Your task to perform on an android device: see creations saved in the google photos Image 0: 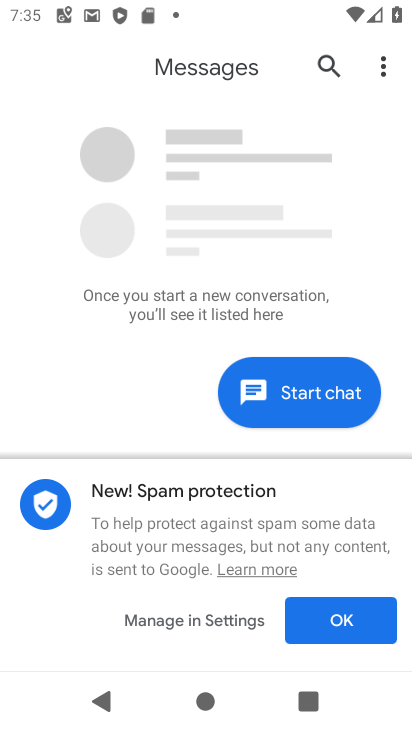
Step 0: press home button
Your task to perform on an android device: see creations saved in the google photos Image 1: 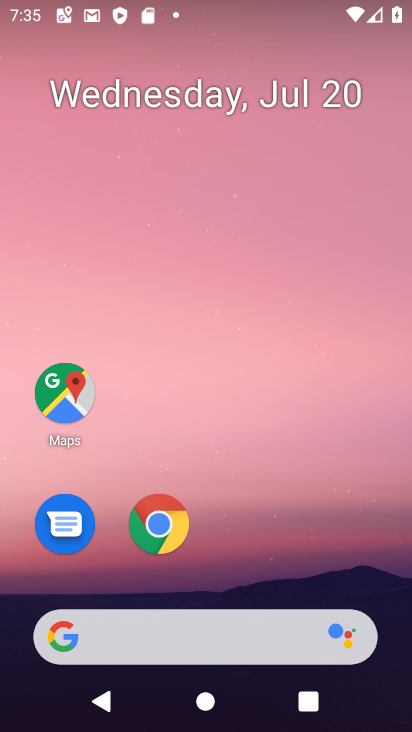
Step 1: drag from (183, 637) to (327, 116)
Your task to perform on an android device: see creations saved in the google photos Image 2: 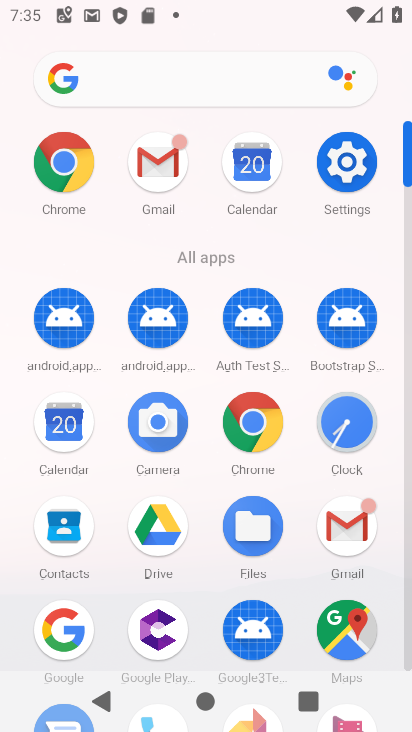
Step 2: drag from (219, 596) to (357, 170)
Your task to perform on an android device: see creations saved in the google photos Image 3: 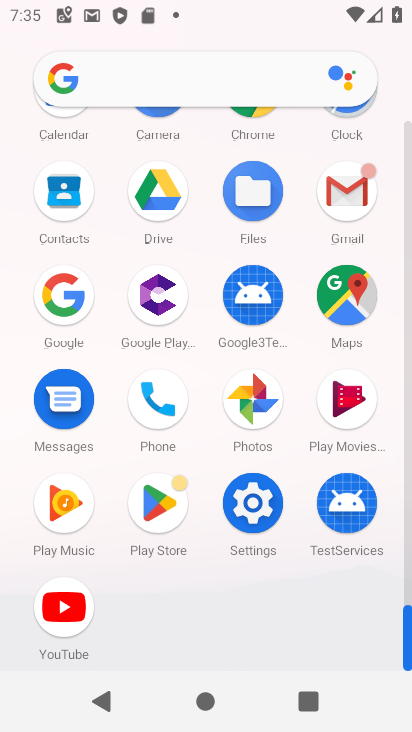
Step 3: click (266, 398)
Your task to perform on an android device: see creations saved in the google photos Image 4: 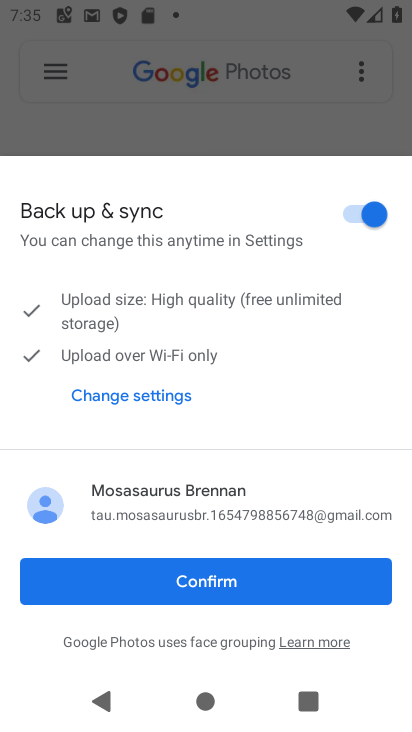
Step 4: click (186, 580)
Your task to perform on an android device: see creations saved in the google photos Image 5: 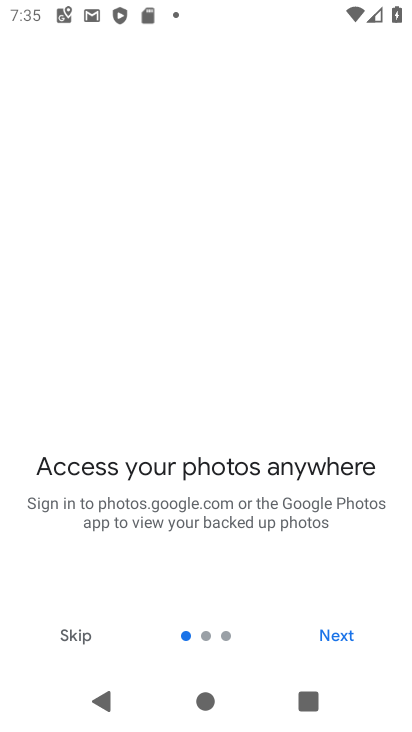
Step 5: click (337, 637)
Your task to perform on an android device: see creations saved in the google photos Image 6: 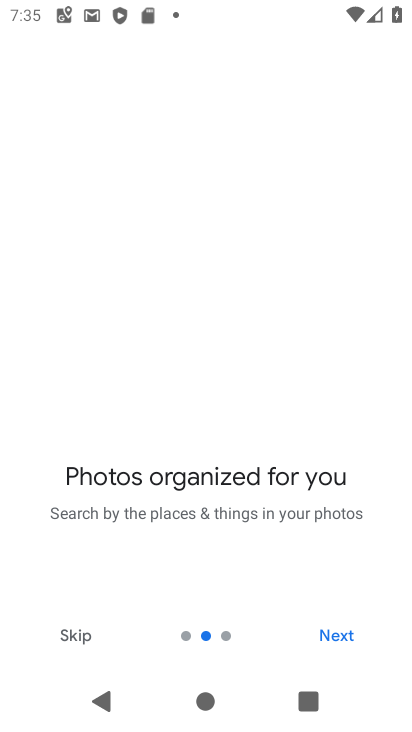
Step 6: click (337, 636)
Your task to perform on an android device: see creations saved in the google photos Image 7: 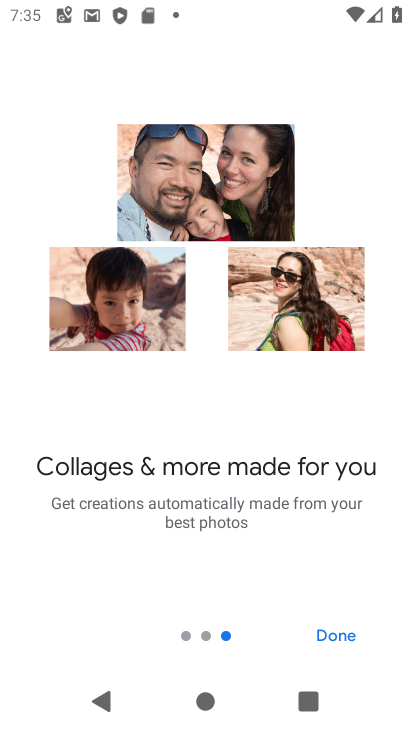
Step 7: click (334, 637)
Your task to perform on an android device: see creations saved in the google photos Image 8: 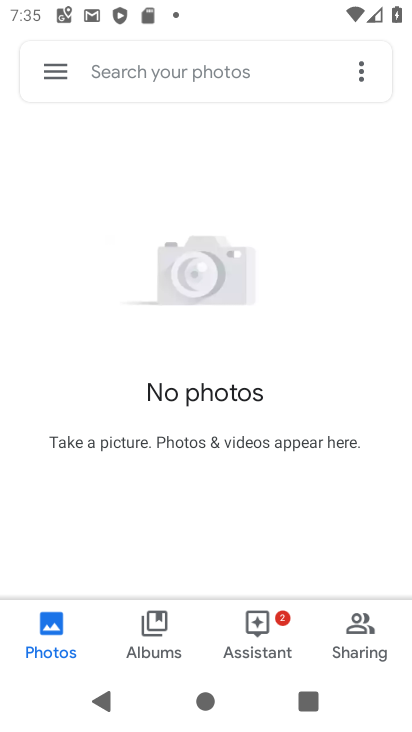
Step 8: click (150, 639)
Your task to perform on an android device: see creations saved in the google photos Image 9: 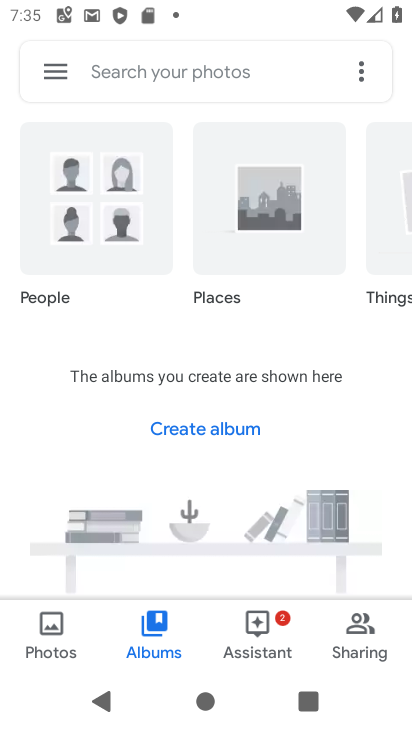
Step 9: click (216, 72)
Your task to perform on an android device: see creations saved in the google photos Image 10: 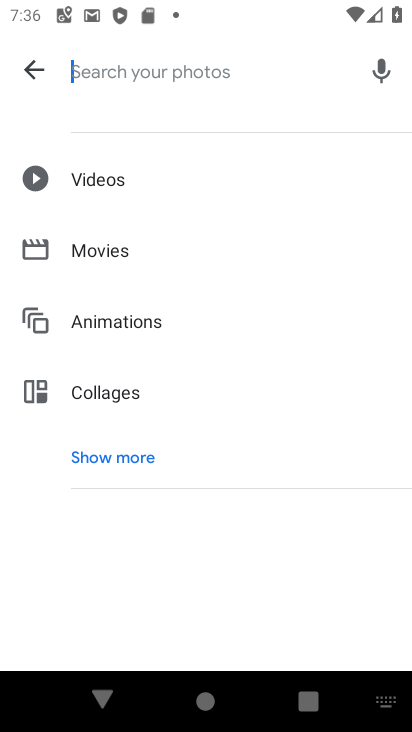
Step 10: click (100, 460)
Your task to perform on an android device: see creations saved in the google photos Image 11: 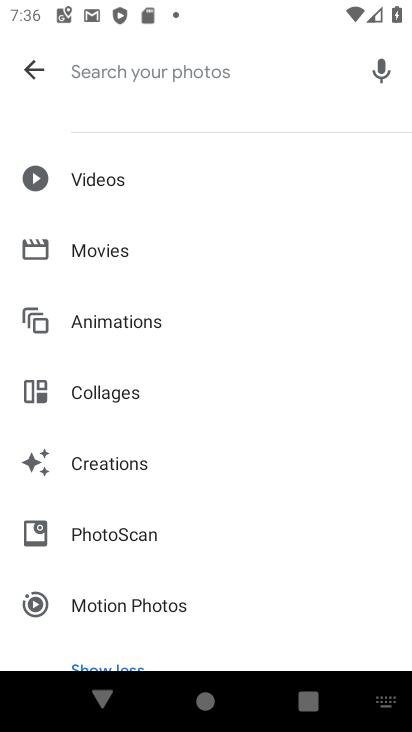
Step 11: click (136, 463)
Your task to perform on an android device: see creations saved in the google photos Image 12: 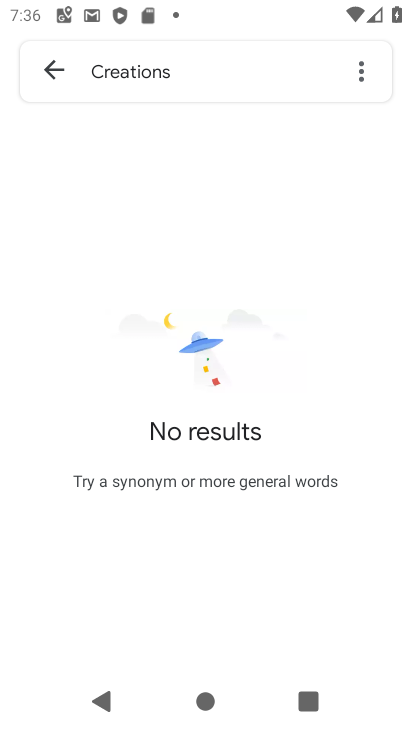
Step 12: task complete